Your task to perform on an android device: toggle translation in the chrome app Image 0: 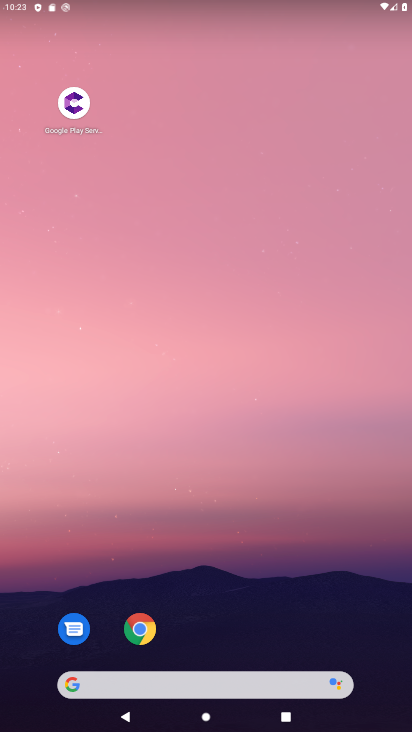
Step 0: click (139, 633)
Your task to perform on an android device: toggle translation in the chrome app Image 1: 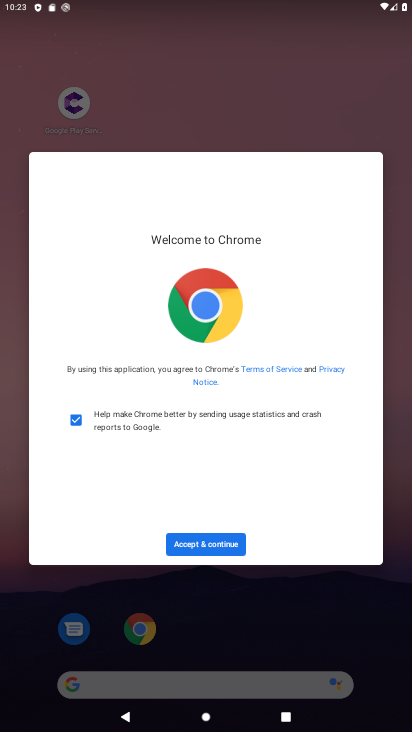
Step 1: click (210, 545)
Your task to perform on an android device: toggle translation in the chrome app Image 2: 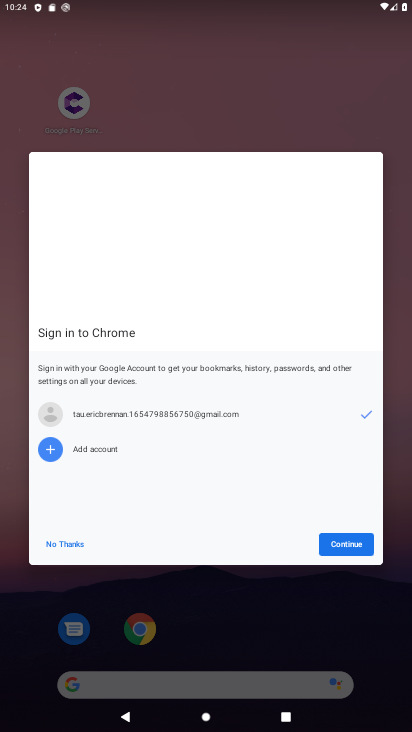
Step 2: click (348, 536)
Your task to perform on an android device: toggle translation in the chrome app Image 3: 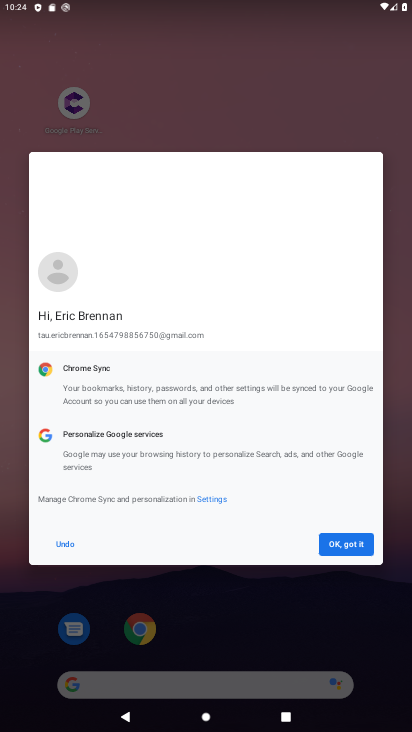
Step 3: click (349, 543)
Your task to perform on an android device: toggle translation in the chrome app Image 4: 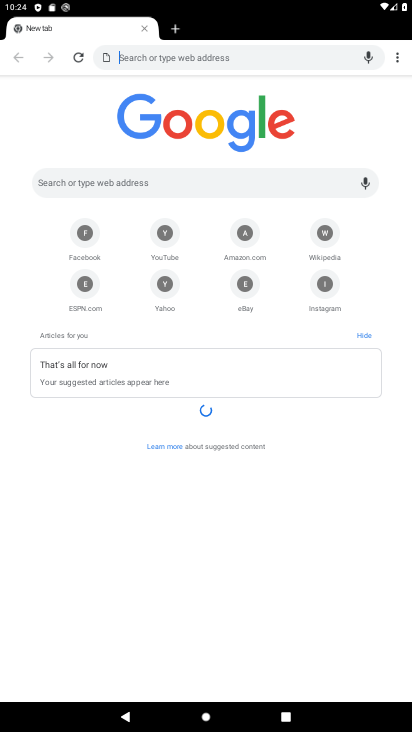
Step 4: click (396, 51)
Your task to perform on an android device: toggle translation in the chrome app Image 5: 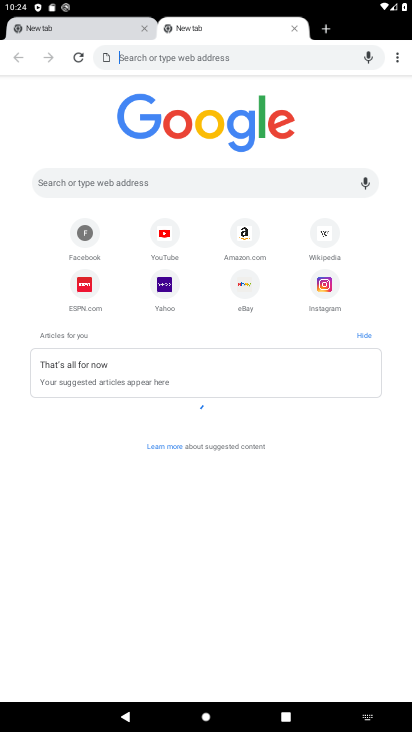
Step 5: click (397, 60)
Your task to perform on an android device: toggle translation in the chrome app Image 6: 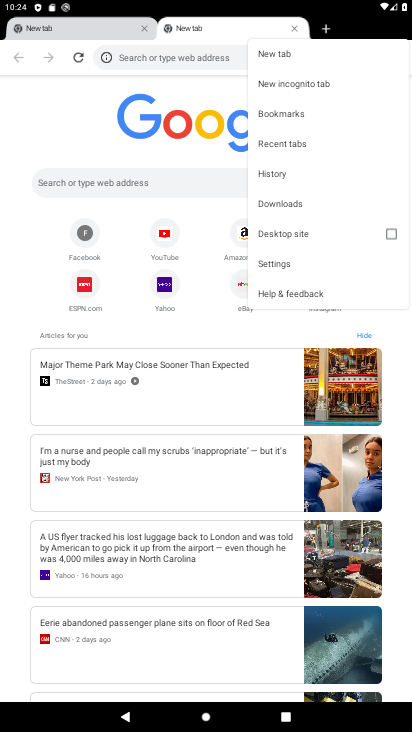
Step 6: click (287, 262)
Your task to perform on an android device: toggle translation in the chrome app Image 7: 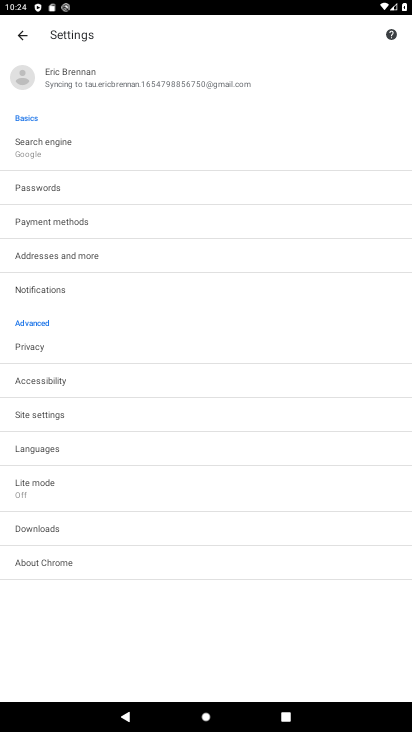
Step 7: click (40, 447)
Your task to perform on an android device: toggle translation in the chrome app Image 8: 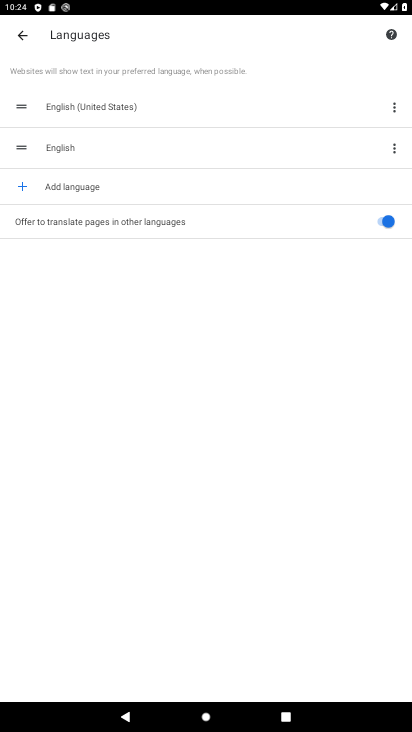
Step 8: click (383, 221)
Your task to perform on an android device: toggle translation in the chrome app Image 9: 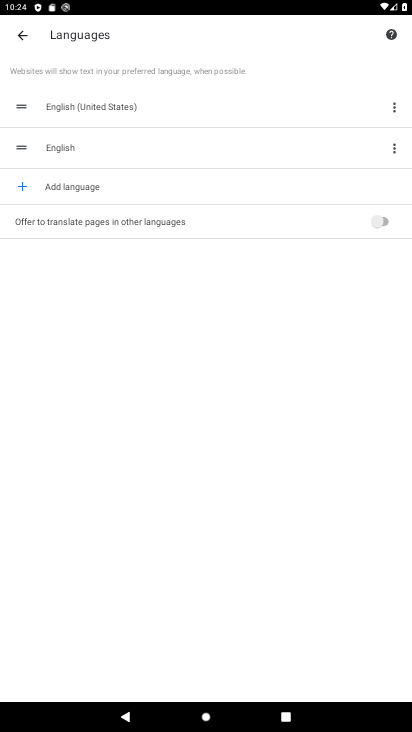
Step 9: task complete